Your task to perform on an android device: open sync settings in chrome Image 0: 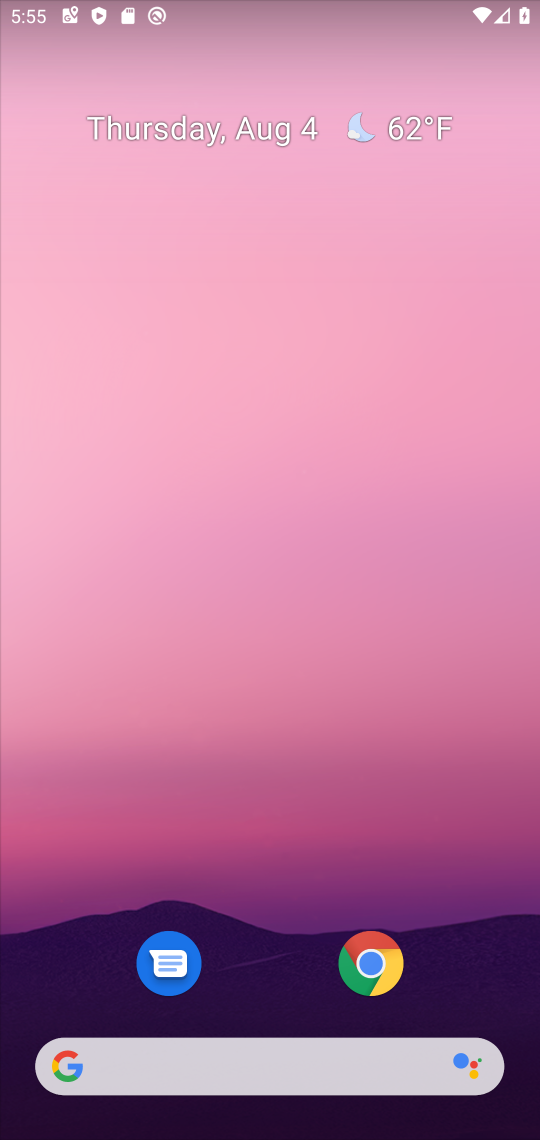
Step 0: click (367, 968)
Your task to perform on an android device: open sync settings in chrome Image 1: 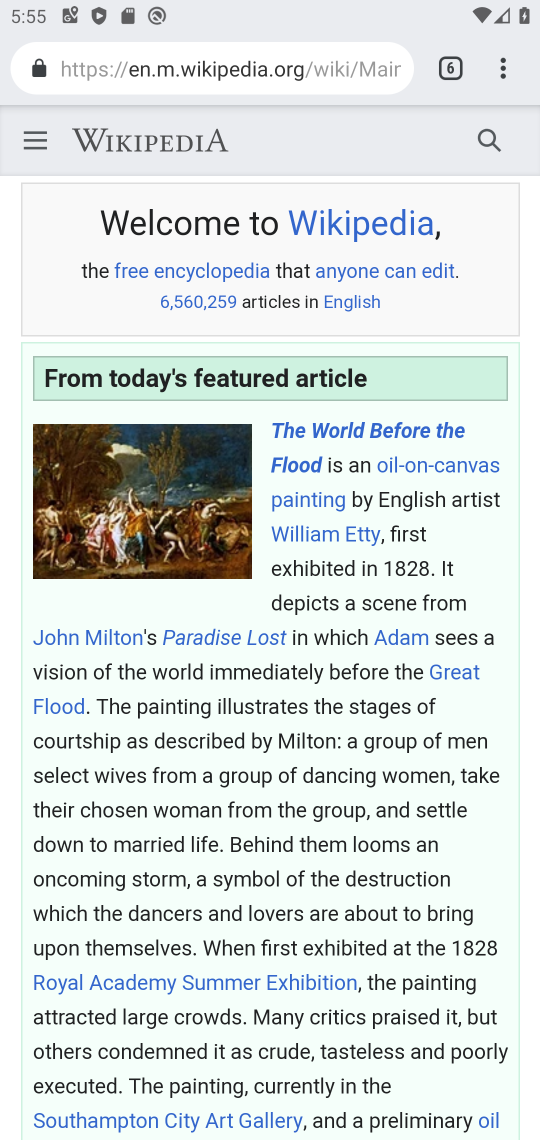
Step 1: click (514, 70)
Your task to perform on an android device: open sync settings in chrome Image 2: 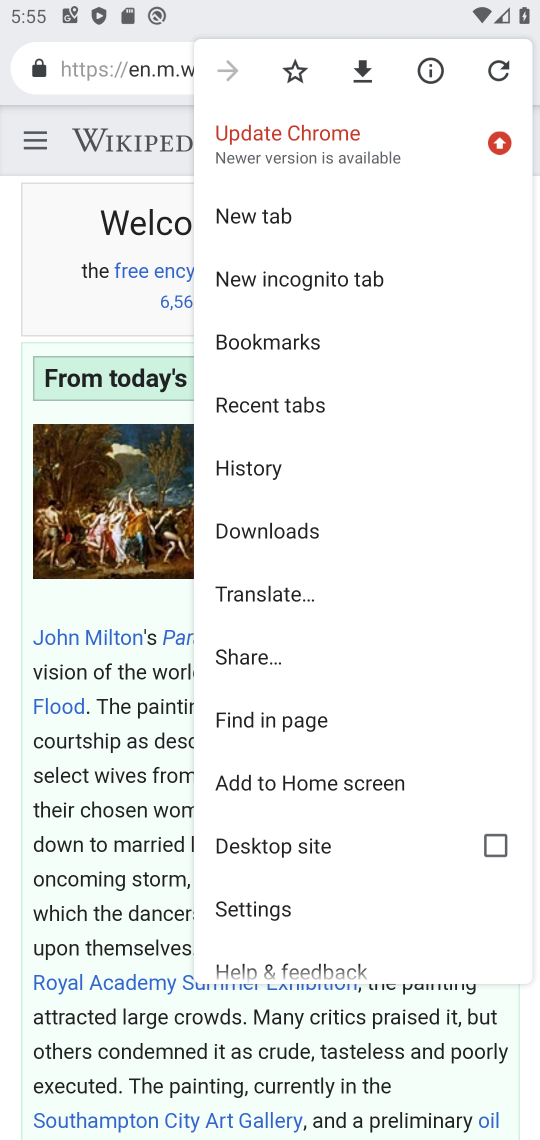
Step 2: click (252, 905)
Your task to perform on an android device: open sync settings in chrome Image 3: 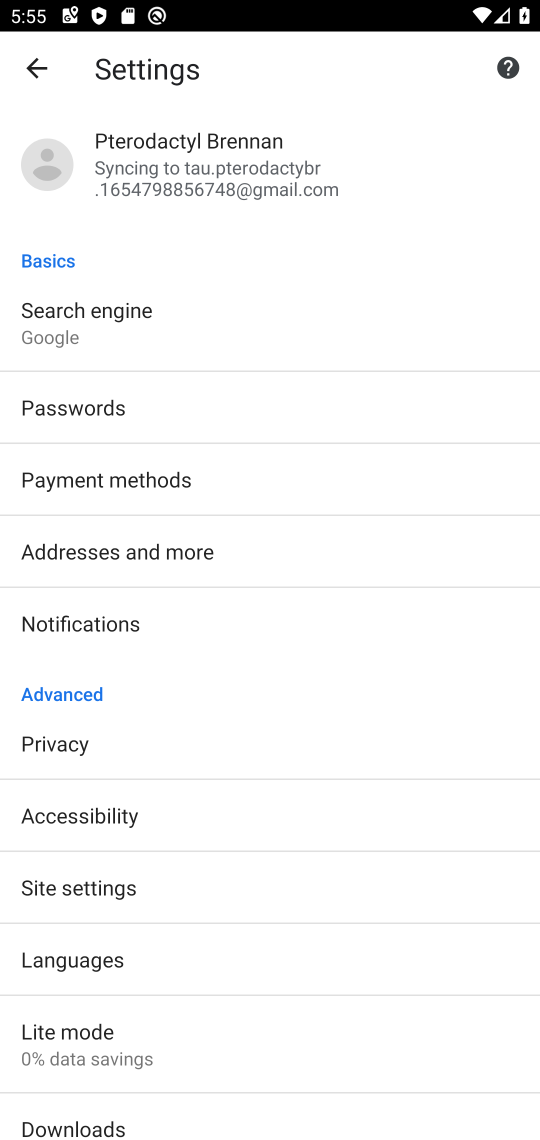
Step 3: click (175, 147)
Your task to perform on an android device: open sync settings in chrome Image 4: 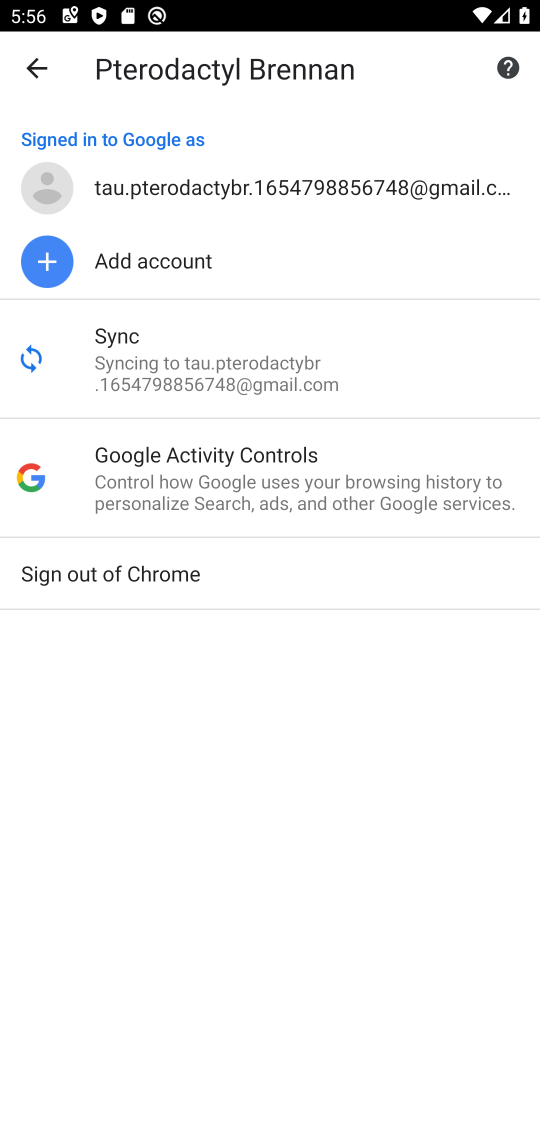
Step 4: task complete